Your task to perform on an android device: Show me a list of home improvement items on the Home Depot website. Image 0: 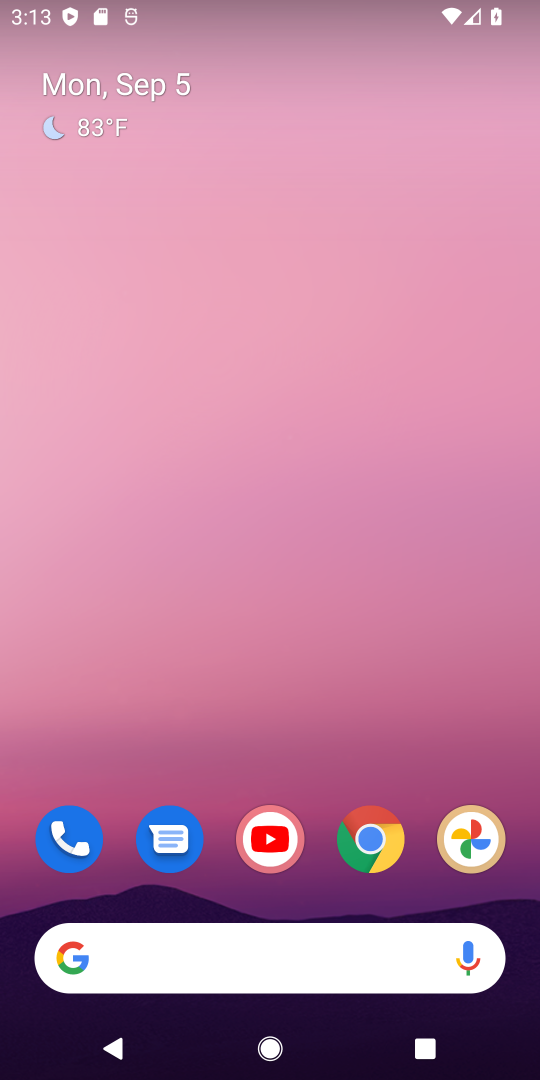
Step 0: click (374, 834)
Your task to perform on an android device: Show me a list of home improvement items on the Home Depot website. Image 1: 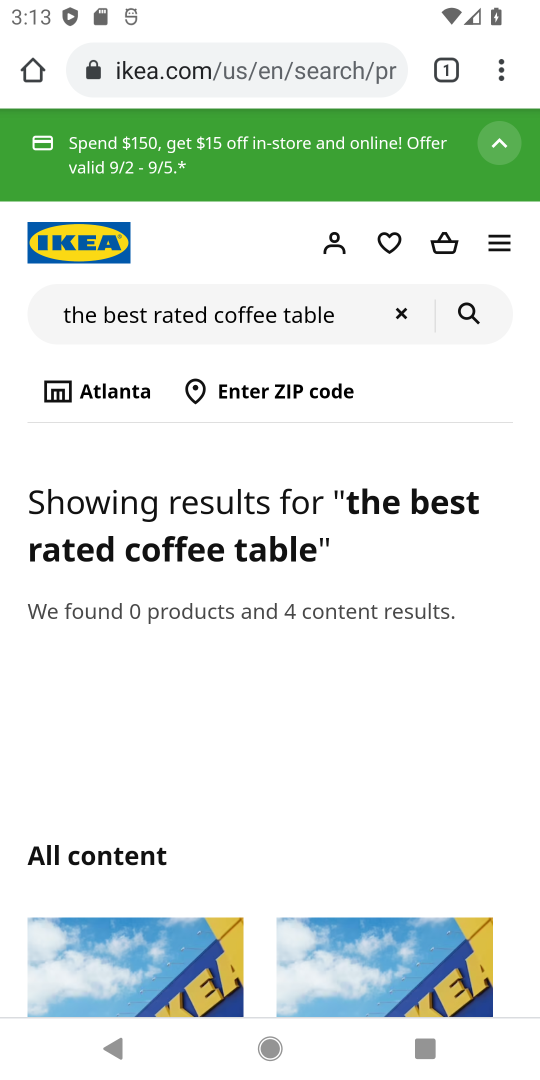
Step 1: click (237, 62)
Your task to perform on an android device: Show me a list of home improvement items on the Home Depot website. Image 2: 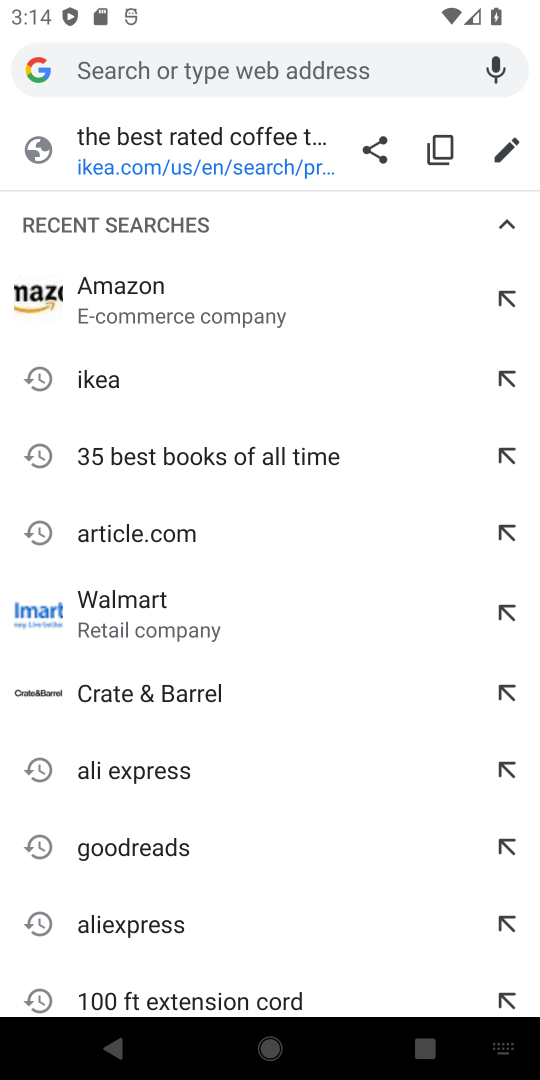
Step 2: type " the Home Depot"
Your task to perform on an android device: Show me a list of home improvement items on the Home Depot website. Image 3: 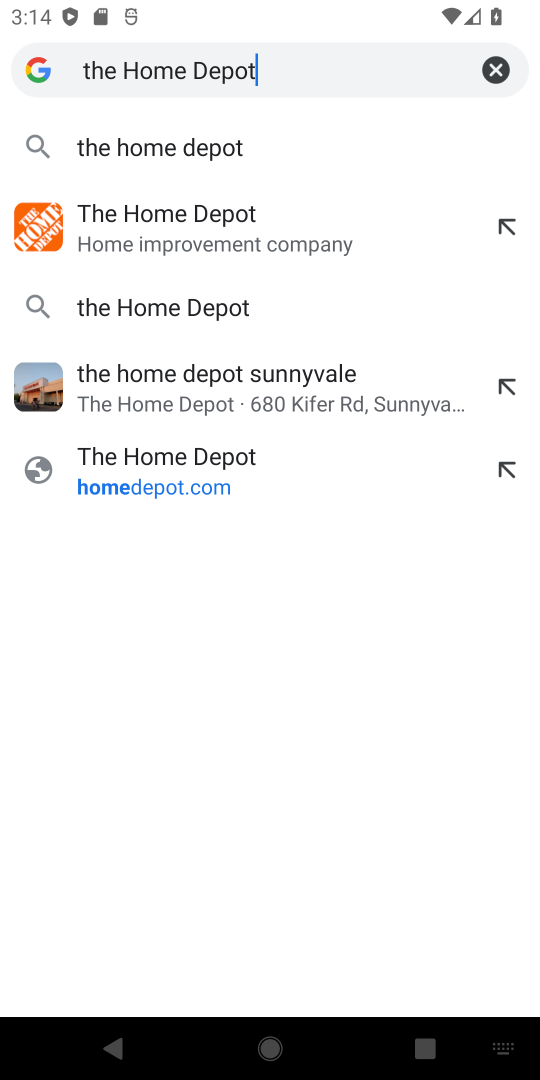
Step 3: click (219, 245)
Your task to perform on an android device: Show me a list of home improvement items on the Home Depot website. Image 4: 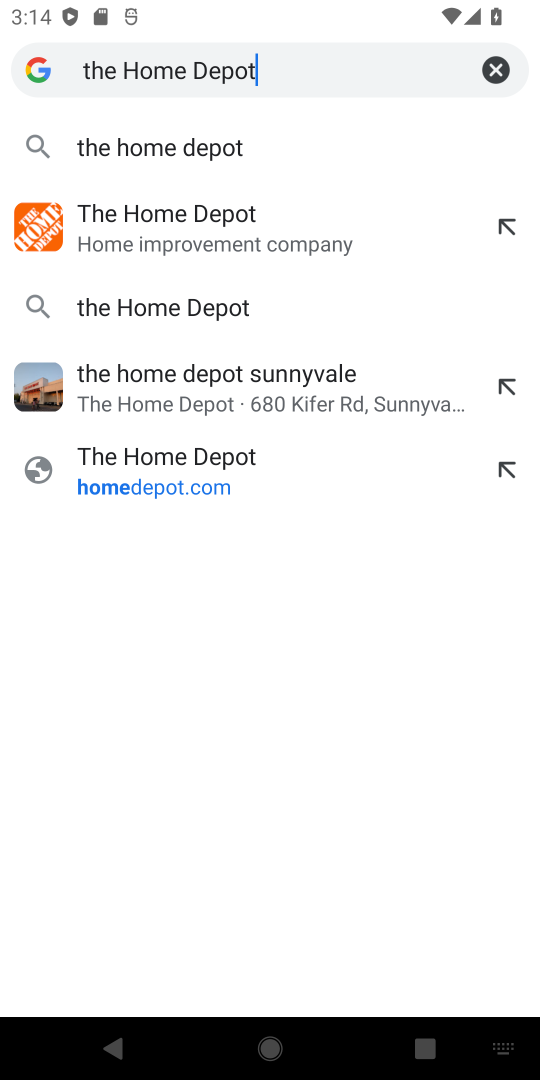
Step 4: click (233, 217)
Your task to perform on an android device: Show me a list of home improvement items on the Home Depot website. Image 5: 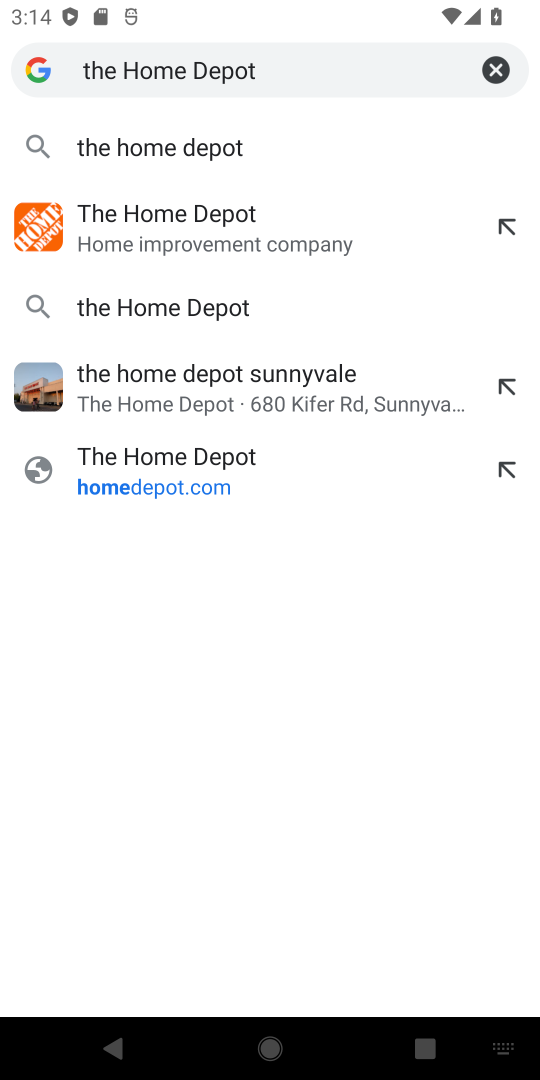
Step 5: click (233, 217)
Your task to perform on an android device: Show me a list of home improvement items on the Home Depot website. Image 6: 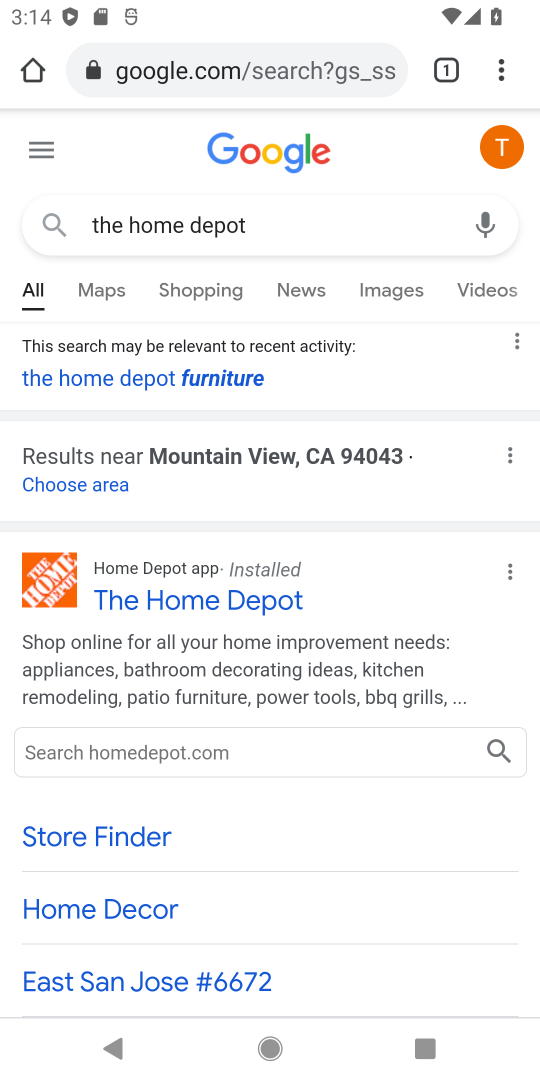
Step 6: click (122, 609)
Your task to perform on an android device: Show me a list of home improvement items on the Home Depot website. Image 7: 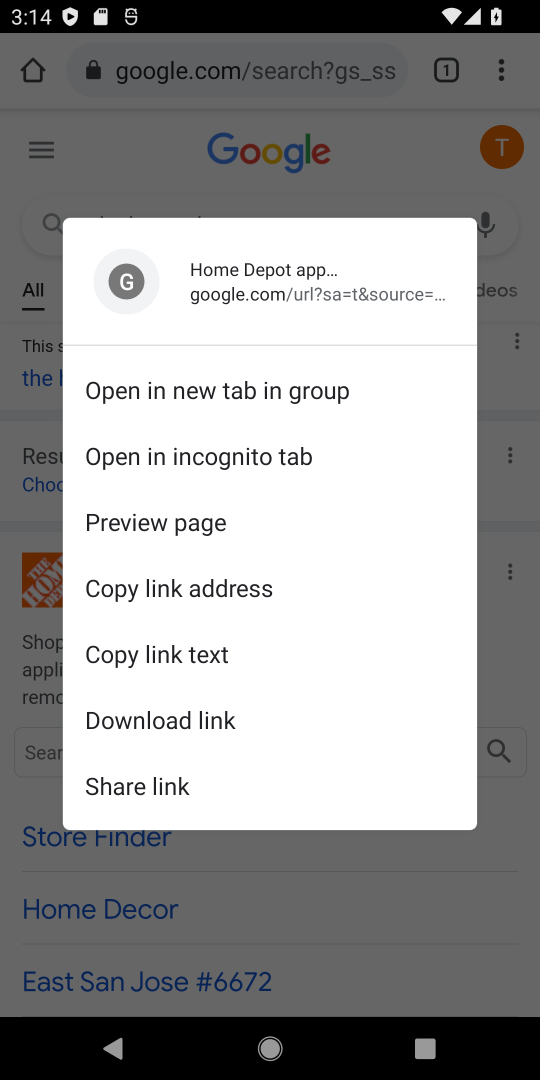
Step 7: click (19, 607)
Your task to perform on an android device: Show me a list of home improvement items on the Home Depot website. Image 8: 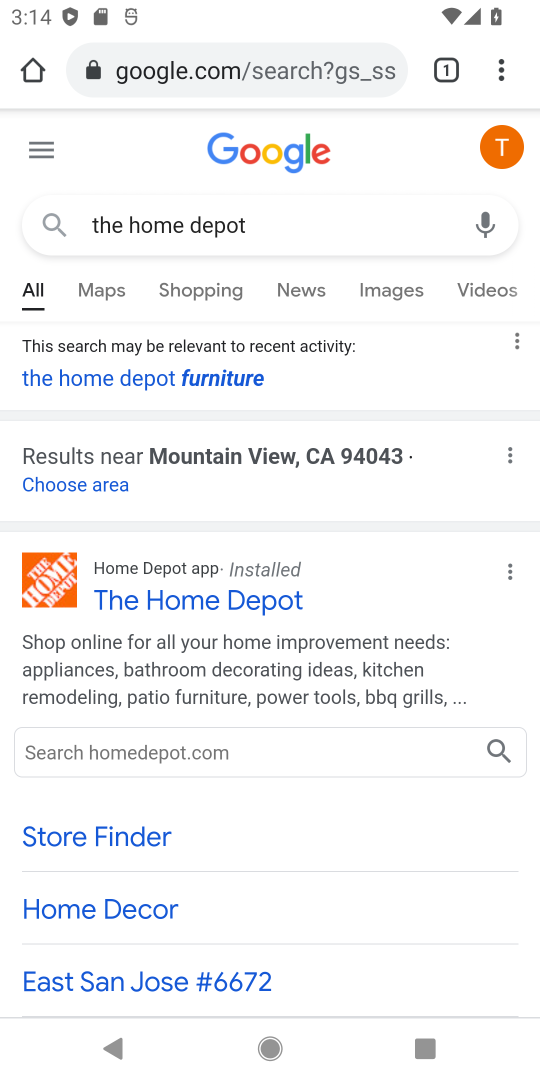
Step 8: click (135, 593)
Your task to perform on an android device: Show me a list of home improvement items on the Home Depot website. Image 9: 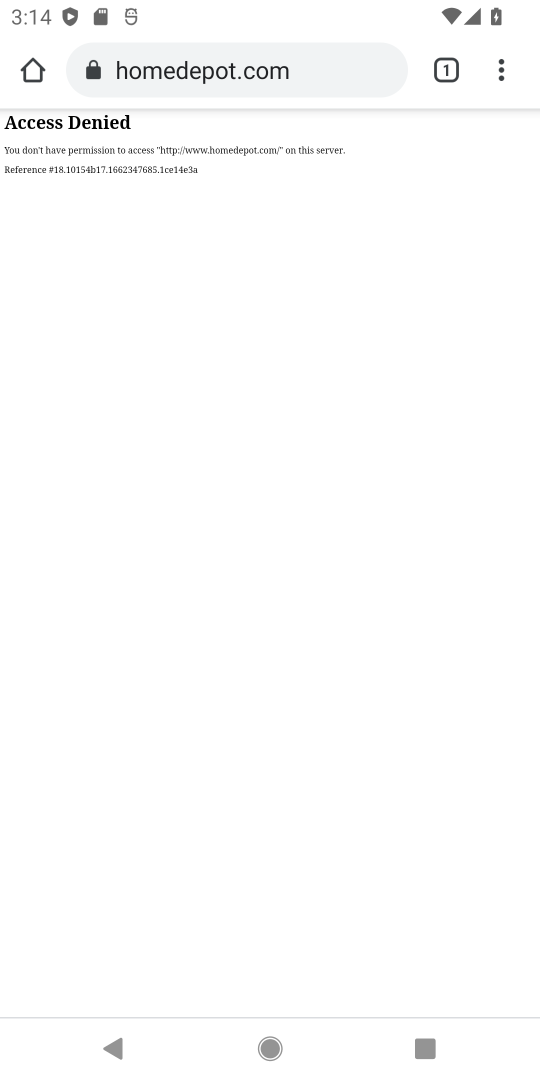
Step 9: task complete